Your task to perform on an android device: Open Yahoo.com Image 0: 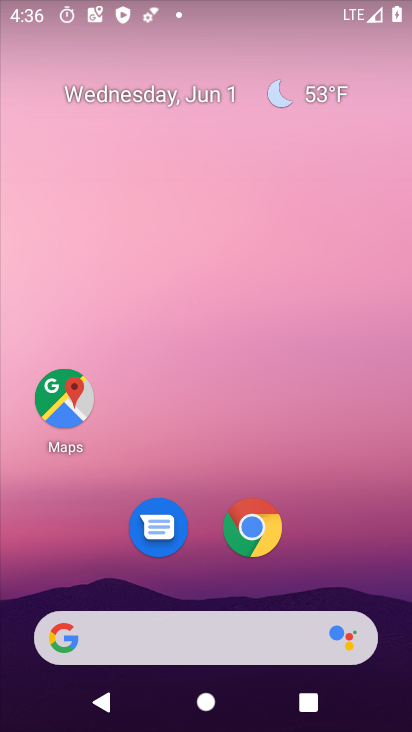
Step 0: drag from (316, 582) to (326, 93)
Your task to perform on an android device: Open Yahoo.com Image 1: 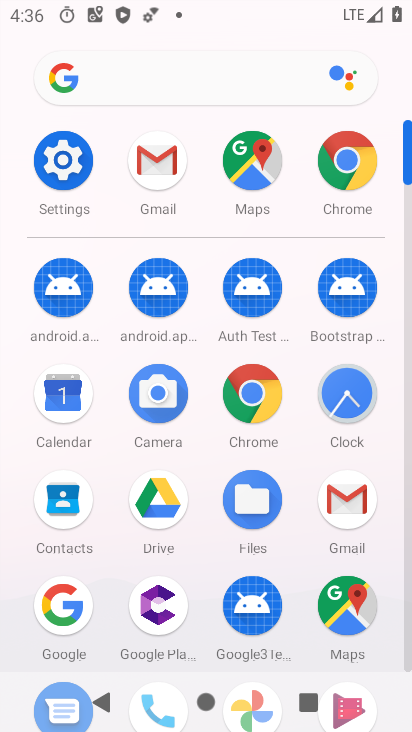
Step 1: click (256, 382)
Your task to perform on an android device: Open Yahoo.com Image 2: 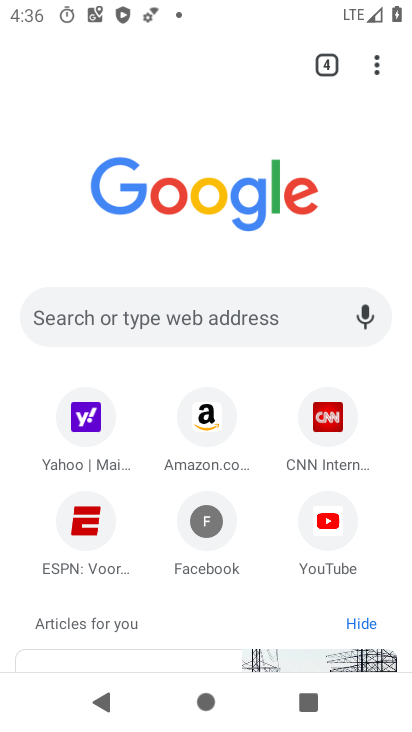
Step 2: click (155, 319)
Your task to perform on an android device: Open Yahoo.com Image 3: 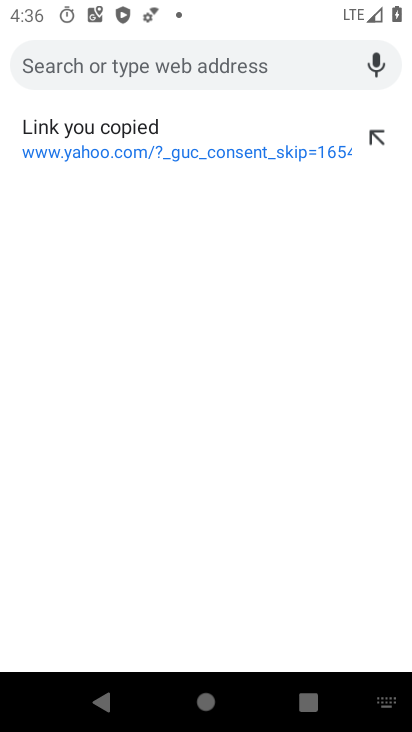
Step 3: type " Yahoo.com"
Your task to perform on an android device: Open Yahoo.com Image 4: 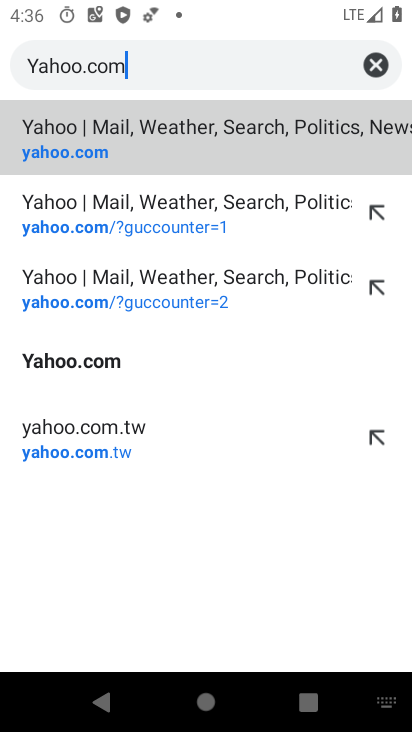
Step 4: click (92, 156)
Your task to perform on an android device: Open Yahoo.com Image 5: 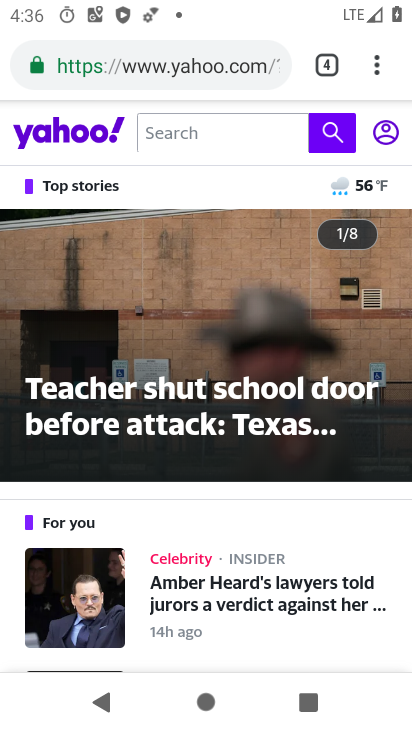
Step 5: task complete